Your task to perform on an android device: check out phone information Image 0: 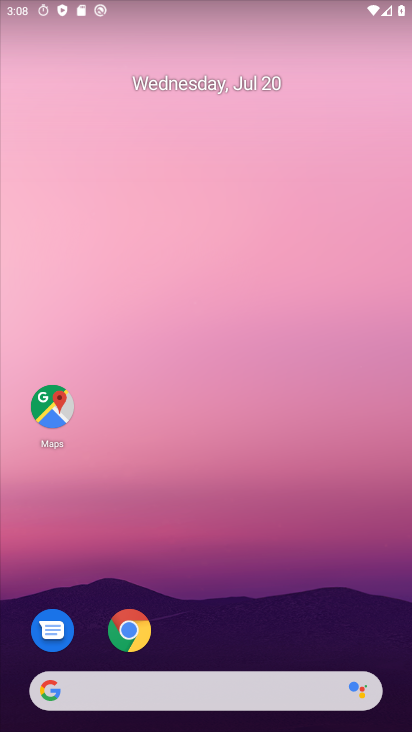
Step 0: drag from (247, 661) to (167, 25)
Your task to perform on an android device: check out phone information Image 1: 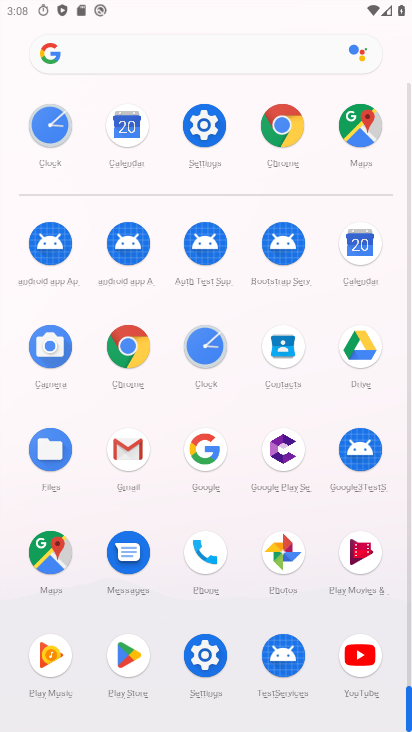
Step 1: click (220, 112)
Your task to perform on an android device: check out phone information Image 2: 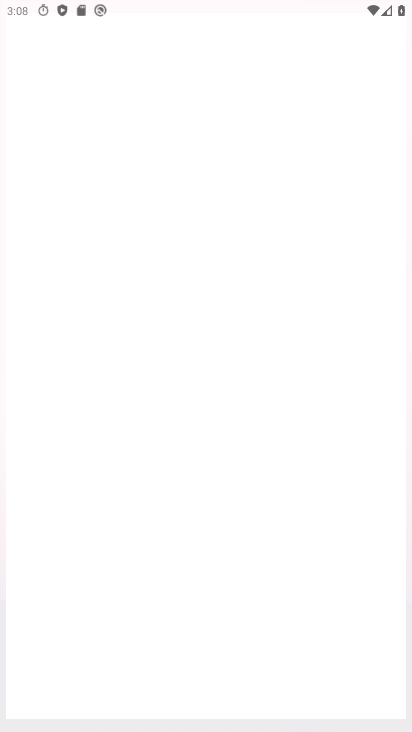
Step 2: click (205, 120)
Your task to perform on an android device: check out phone information Image 3: 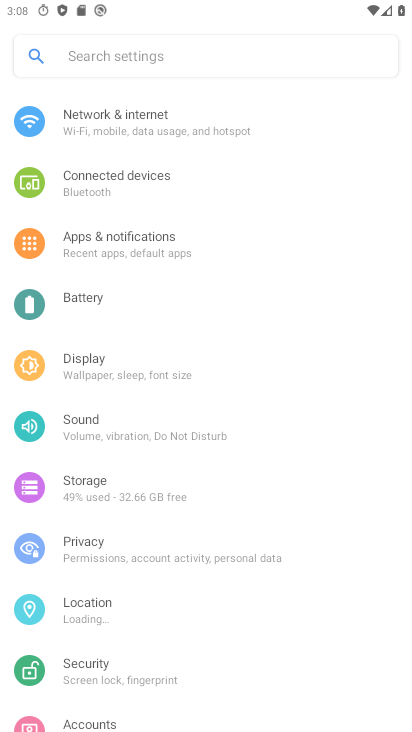
Step 3: click (207, 120)
Your task to perform on an android device: check out phone information Image 4: 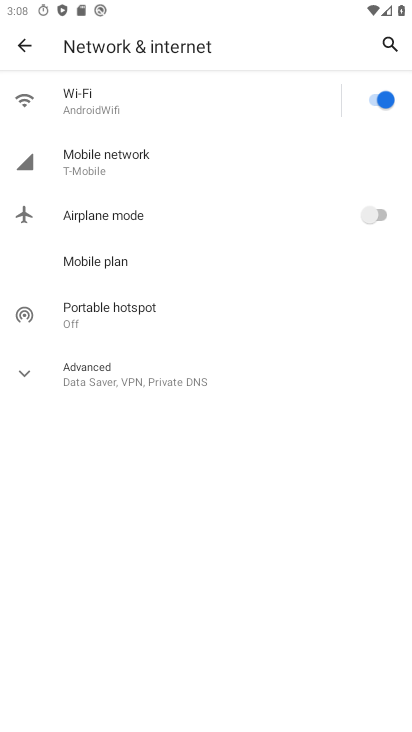
Step 4: click (21, 64)
Your task to perform on an android device: check out phone information Image 5: 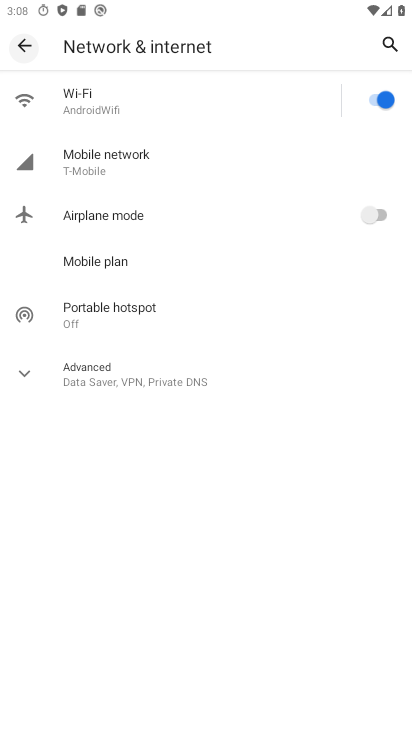
Step 5: click (24, 63)
Your task to perform on an android device: check out phone information Image 6: 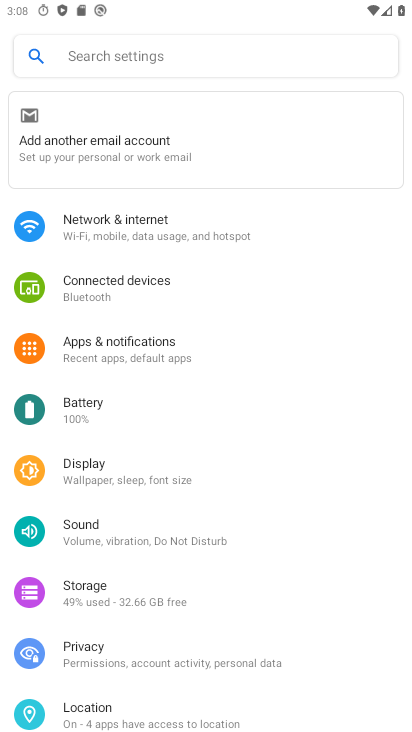
Step 6: drag from (191, 549) to (148, 153)
Your task to perform on an android device: check out phone information Image 7: 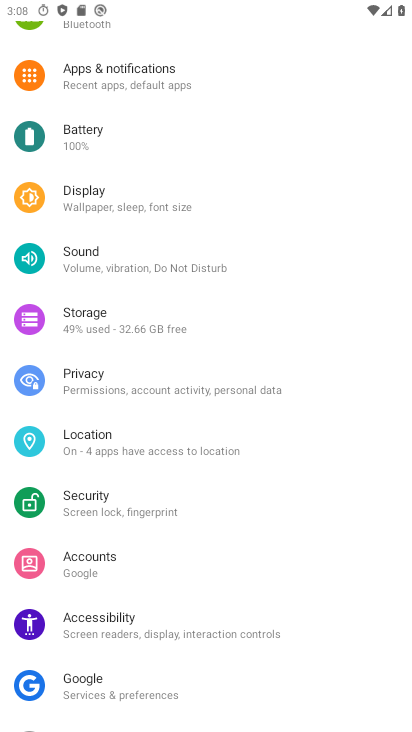
Step 7: drag from (112, 513) to (127, 232)
Your task to perform on an android device: check out phone information Image 8: 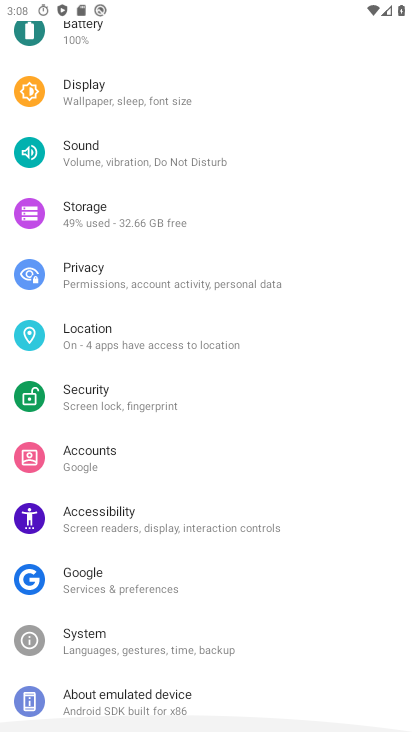
Step 8: drag from (131, 548) to (186, 239)
Your task to perform on an android device: check out phone information Image 9: 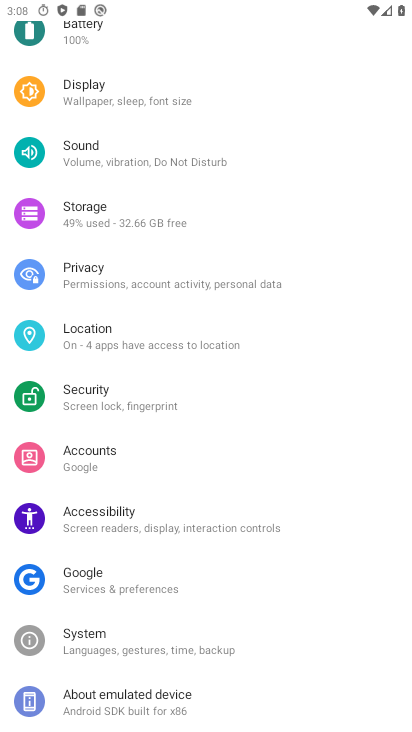
Step 9: click (127, 690)
Your task to perform on an android device: check out phone information Image 10: 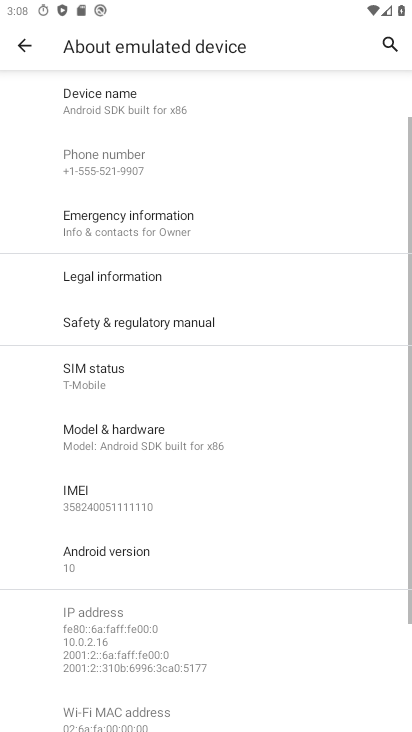
Step 10: task complete